Your task to perform on an android device: Do I have any events tomorrow? Image 0: 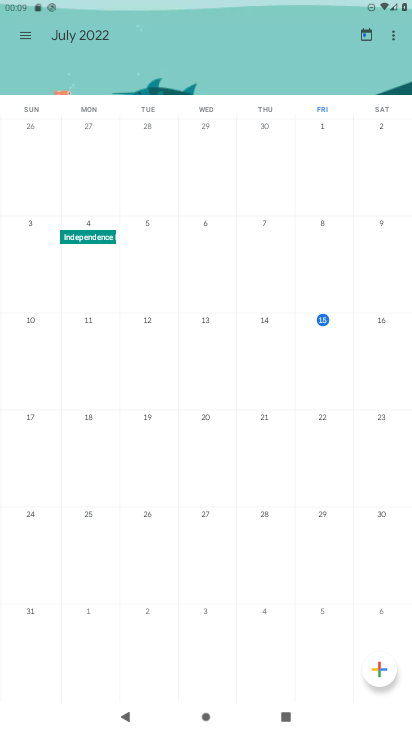
Step 0: click (18, 44)
Your task to perform on an android device: Do I have any events tomorrow? Image 1: 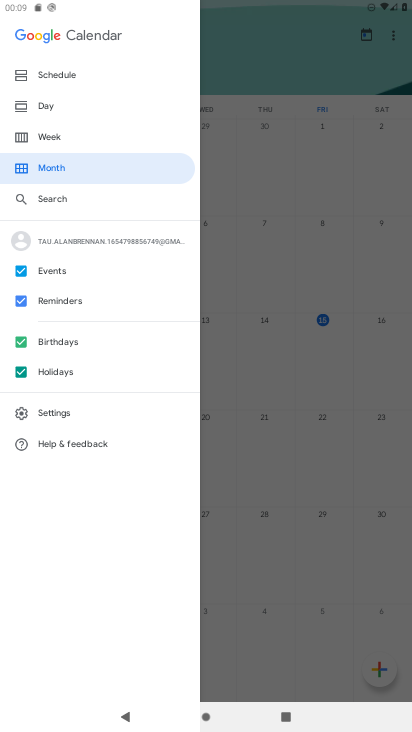
Step 1: click (61, 113)
Your task to perform on an android device: Do I have any events tomorrow? Image 2: 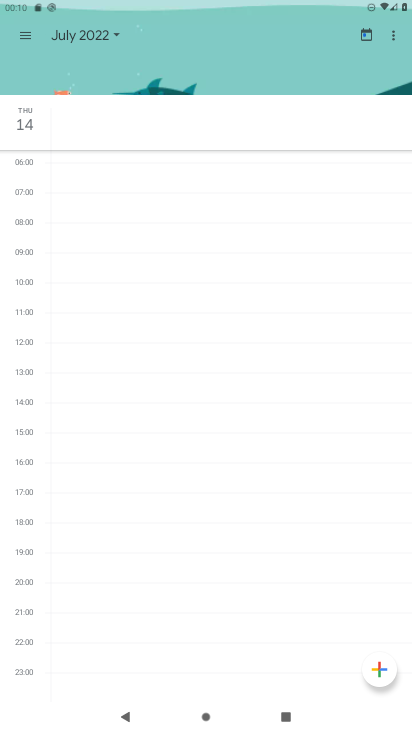
Step 2: click (113, 26)
Your task to perform on an android device: Do I have any events tomorrow? Image 3: 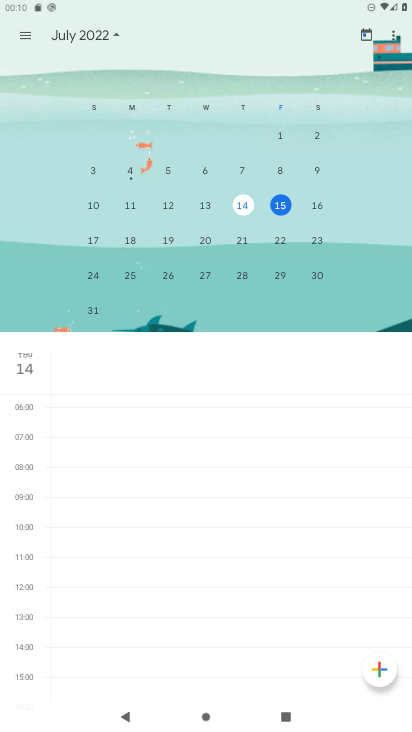
Step 3: click (279, 215)
Your task to perform on an android device: Do I have any events tomorrow? Image 4: 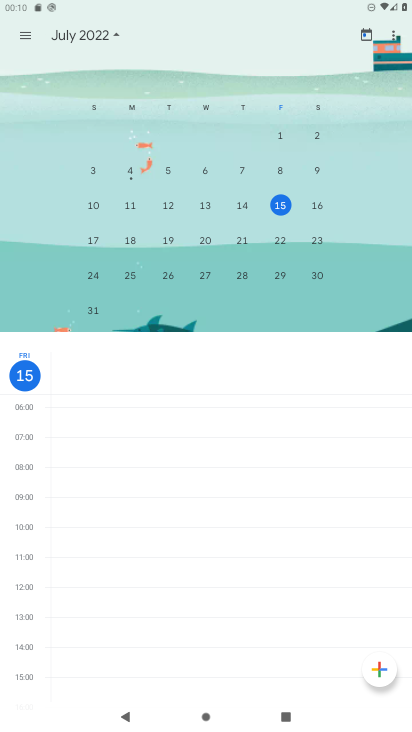
Step 4: task complete